Your task to perform on an android device: change keyboard looks Image 0: 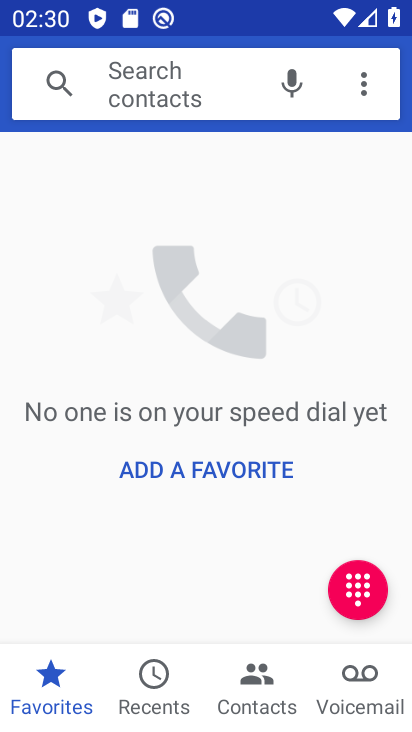
Step 0: press home button
Your task to perform on an android device: change keyboard looks Image 1: 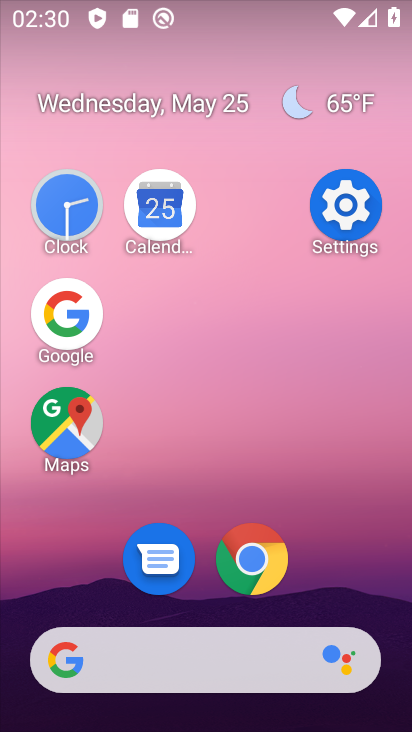
Step 1: click (342, 195)
Your task to perform on an android device: change keyboard looks Image 2: 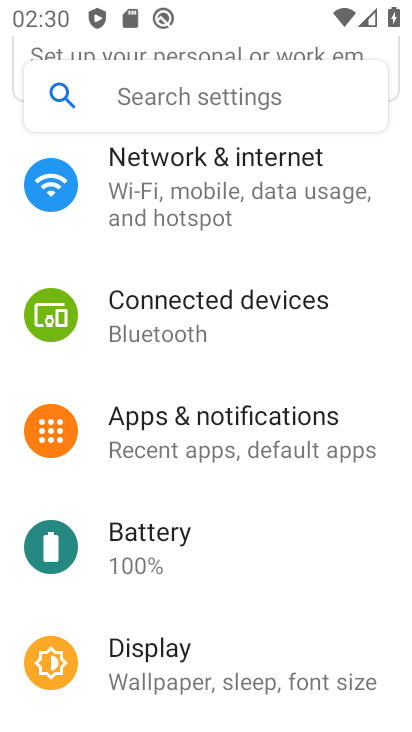
Step 2: drag from (262, 625) to (286, 216)
Your task to perform on an android device: change keyboard looks Image 3: 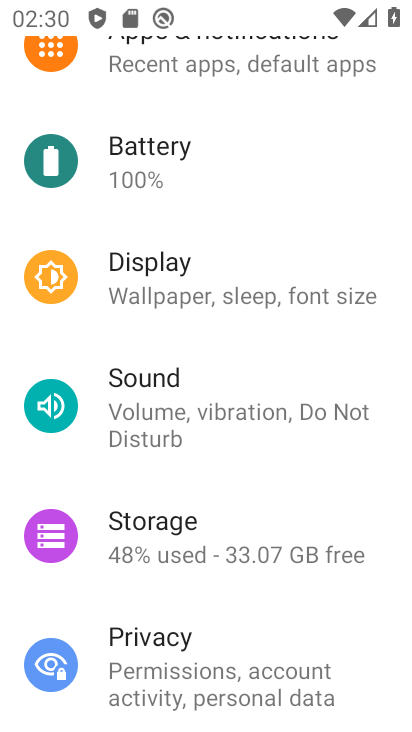
Step 3: drag from (230, 628) to (206, 178)
Your task to perform on an android device: change keyboard looks Image 4: 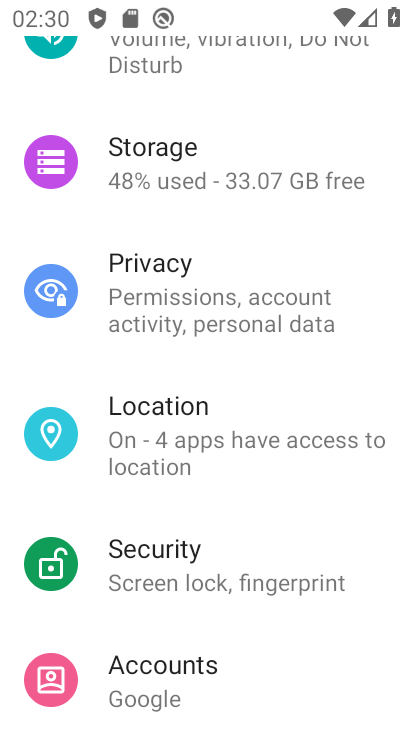
Step 4: drag from (241, 658) to (298, 125)
Your task to perform on an android device: change keyboard looks Image 5: 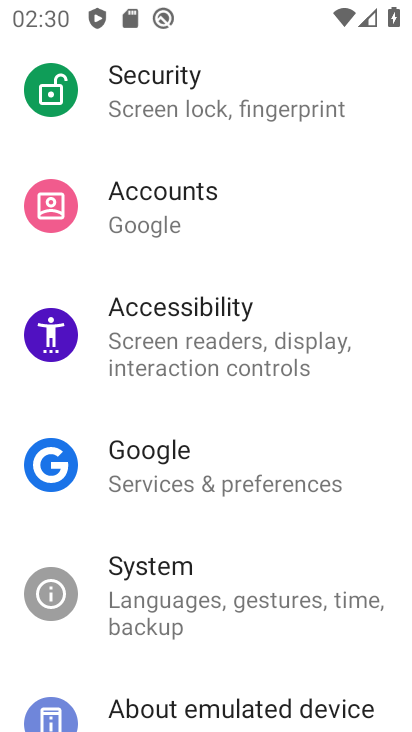
Step 5: drag from (254, 540) to (242, 144)
Your task to perform on an android device: change keyboard looks Image 6: 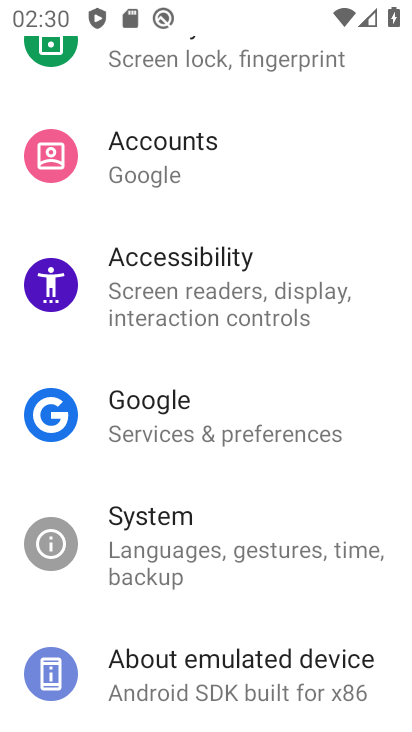
Step 6: click (226, 561)
Your task to perform on an android device: change keyboard looks Image 7: 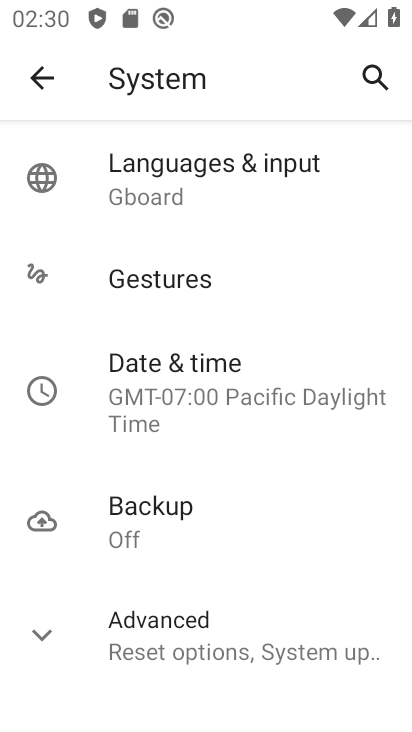
Step 7: click (189, 213)
Your task to perform on an android device: change keyboard looks Image 8: 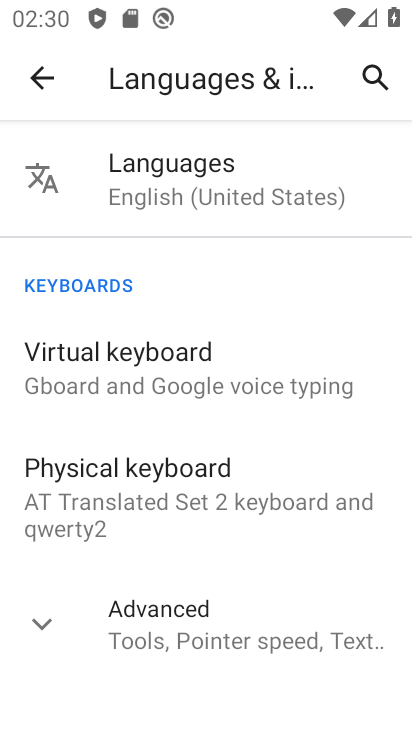
Step 8: click (188, 378)
Your task to perform on an android device: change keyboard looks Image 9: 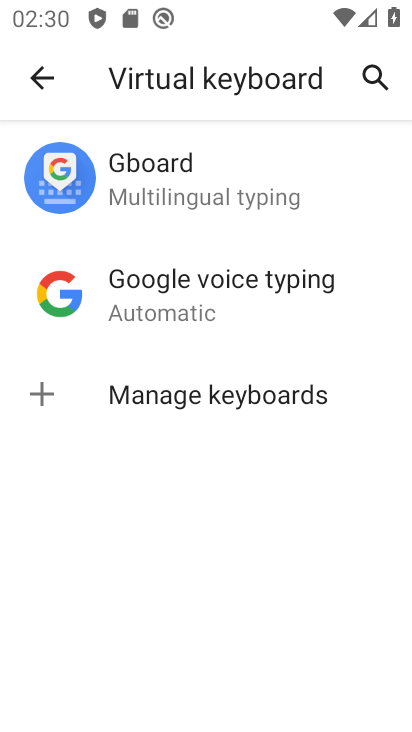
Step 9: click (156, 202)
Your task to perform on an android device: change keyboard looks Image 10: 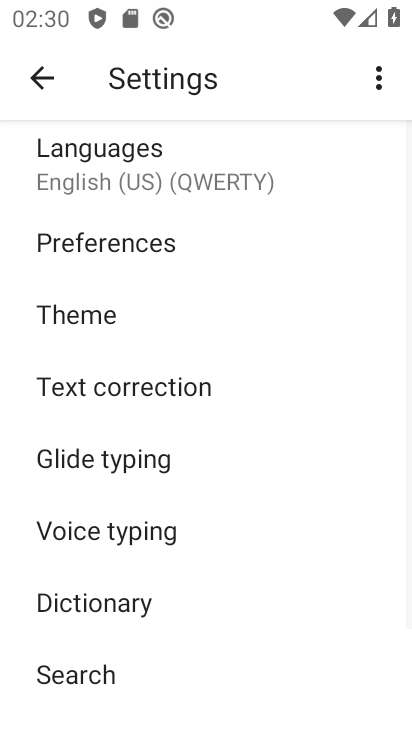
Step 10: click (64, 306)
Your task to perform on an android device: change keyboard looks Image 11: 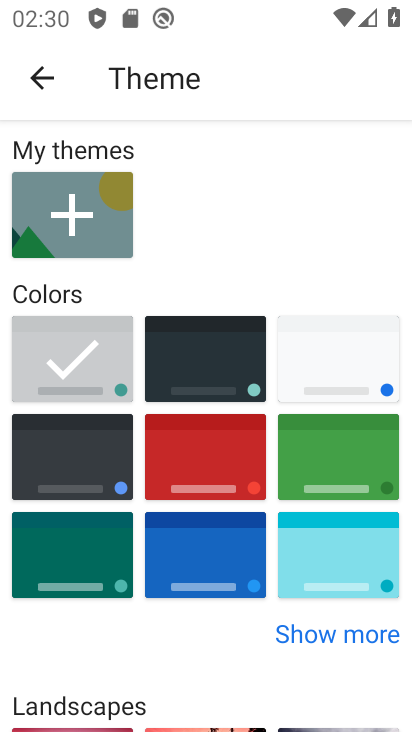
Step 11: click (257, 389)
Your task to perform on an android device: change keyboard looks Image 12: 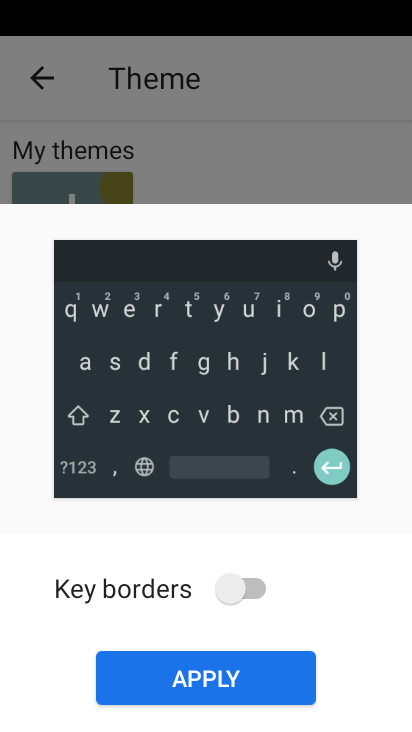
Step 12: click (213, 604)
Your task to perform on an android device: change keyboard looks Image 13: 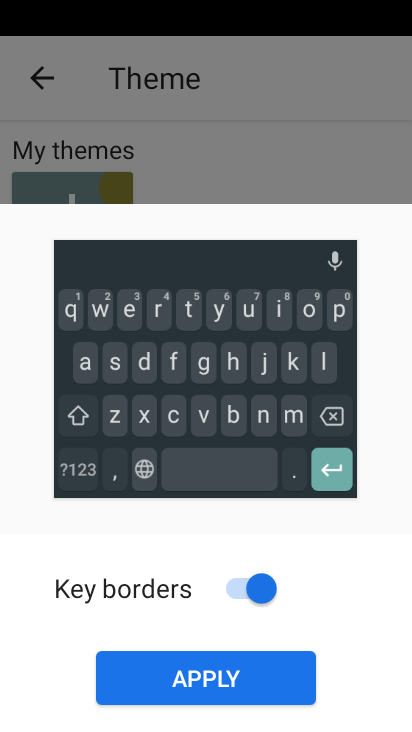
Step 13: click (250, 691)
Your task to perform on an android device: change keyboard looks Image 14: 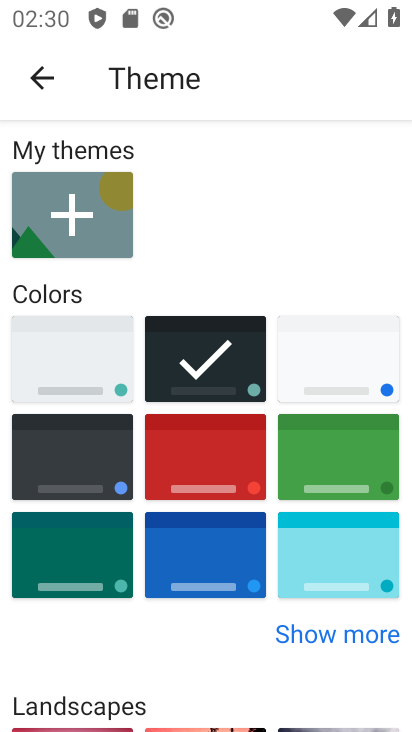
Step 14: task complete